Your task to perform on an android device: empty trash in google photos Image 0: 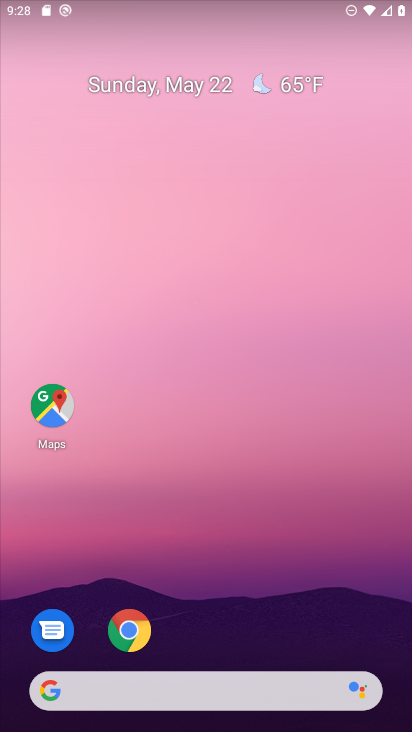
Step 0: press home button
Your task to perform on an android device: empty trash in google photos Image 1: 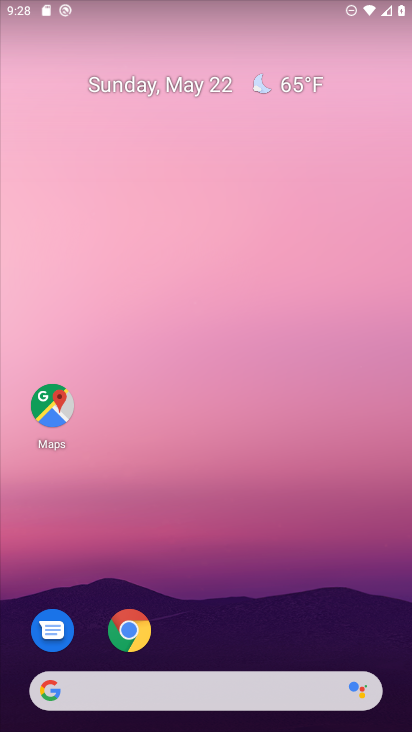
Step 1: drag from (145, 693) to (275, 28)
Your task to perform on an android device: empty trash in google photos Image 2: 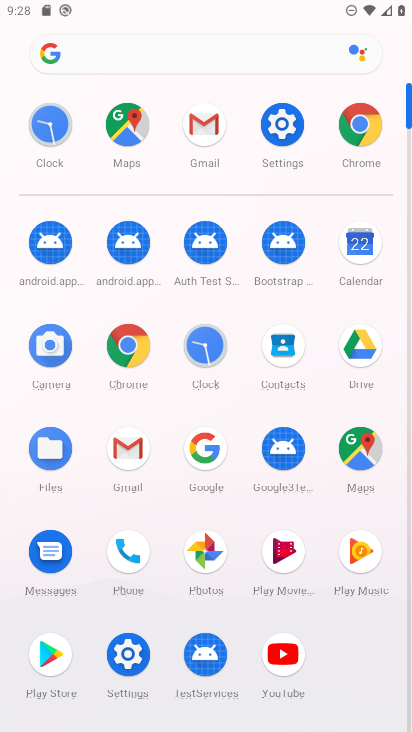
Step 2: click (212, 557)
Your task to perform on an android device: empty trash in google photos Image 3: 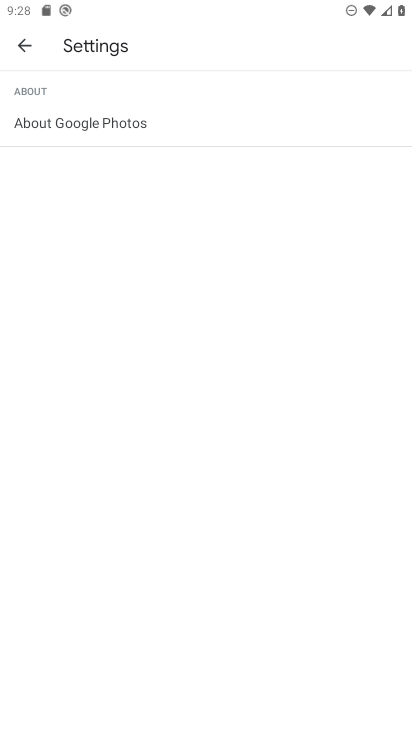
Step 3: click (23, 42)
Your task to perform on an android device: empty trash in google photos Image 4: 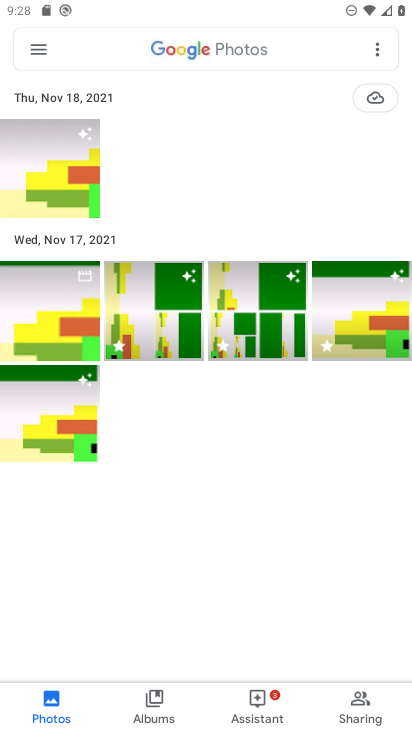
Step 4: click (41, 47)
Your task to perform on an android device: empty trash in google photos Image 5: 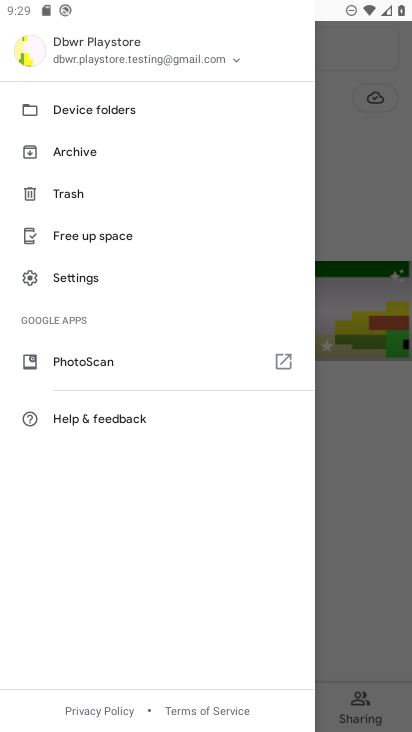
Step 5: click (78, 194)
Your task to perform on an android device: empty trash in google photos Image 6: 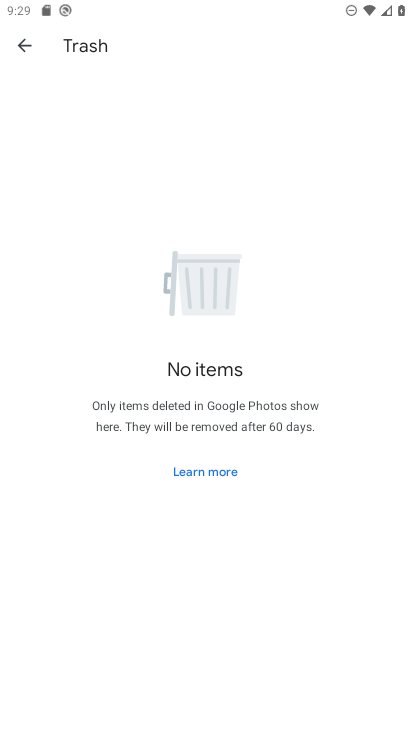
Step 6: task complete